Your task to perform on an android device: find which apps use the phone's location Image 0: 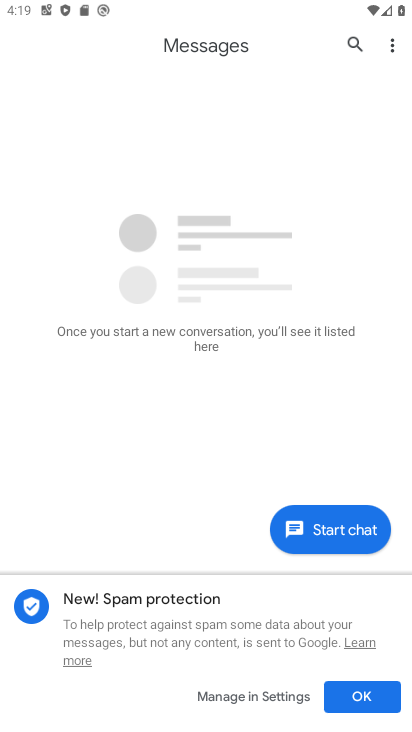
Step 0: press home button
Your task to perform on an android device: find which apps use the phone's location Image 1: 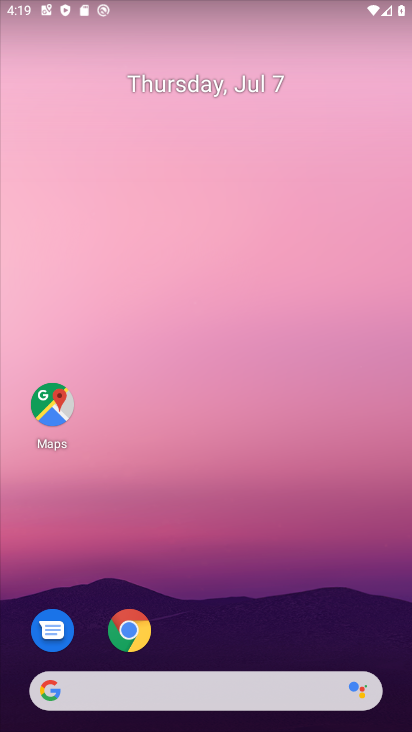
Step 1: drag from (162, 5) to (286, 704)
Your task to perform on an android device: find which apps use the phone's location Image 2: 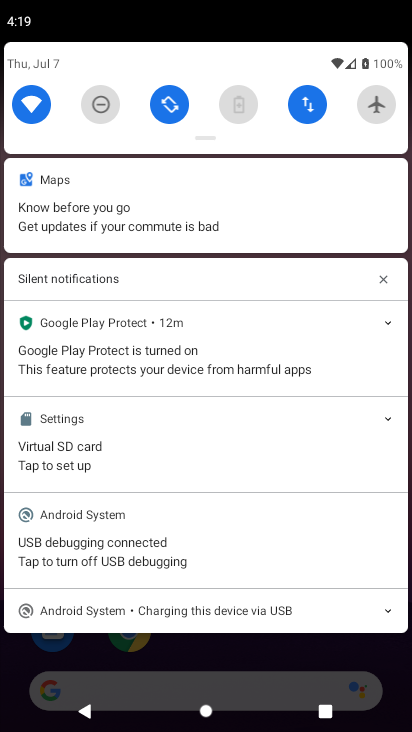
Step 2: drag from (204, 72) to (249, 703)
Your task to perform on an android device: find which apps use the phone's location Image 3: 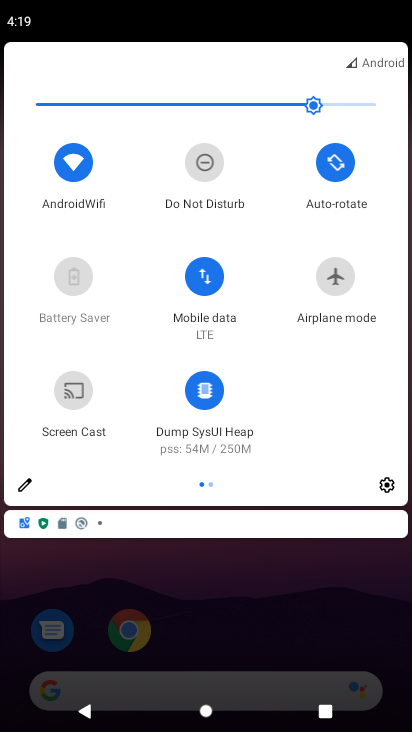
Step 3: click (387, 487)
Your task to perform on an android device: find which apps use the phone's location Image 4: 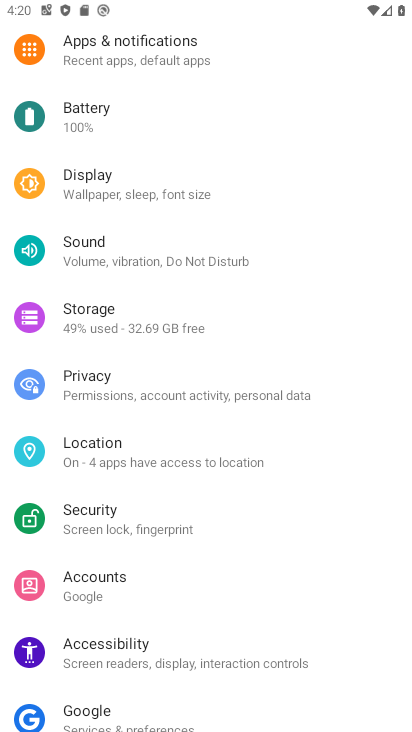
Step 4: click (138, 459)
Your task to perform on an android device: find which apps use the phone's location Image 5: 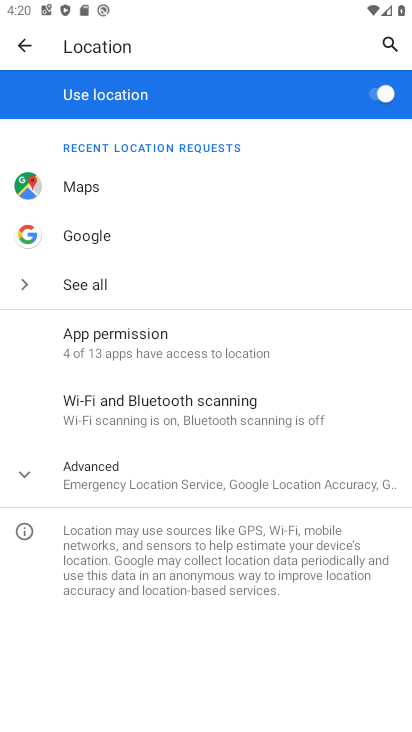
Step 5: click (190, 288)
Your task to perform on an android device: find which apps use the phone's location Image 6: 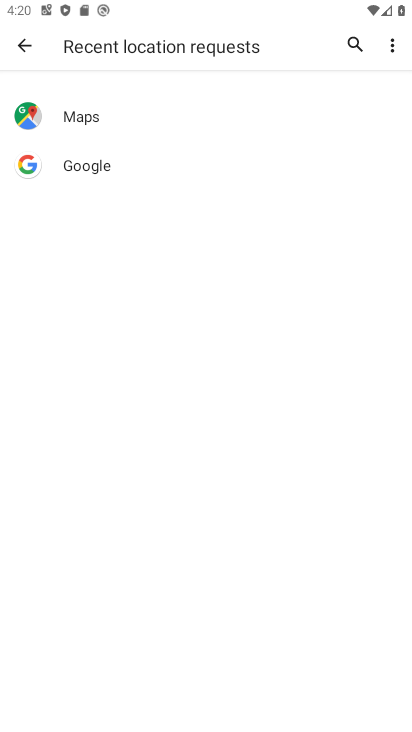
Step 6: task complete